Your task to perform on an android device: read, delete, or share a saved page in the chrome app Image 0: 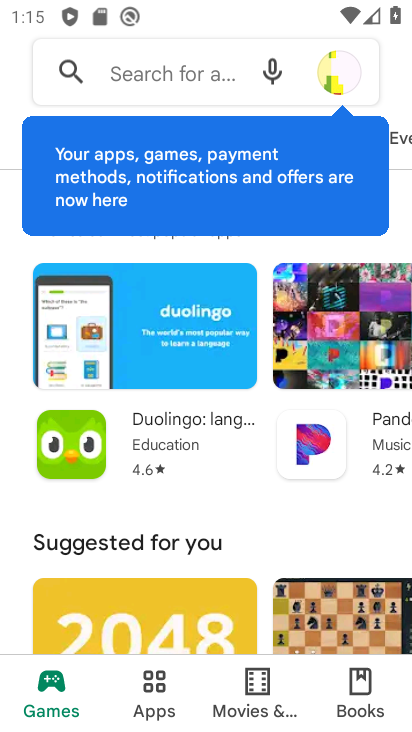
Step 0: press home button
Your task to perform on an android device: read, delete, or share a saved page in the chrome app Image 1: 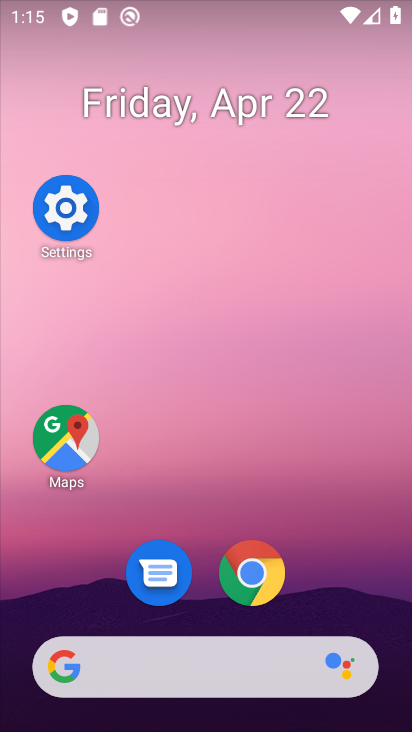
Step 1: click (273, 573)
Your task to perform on an android device: read, delete, or share a saved page in the chrome app Image 2: 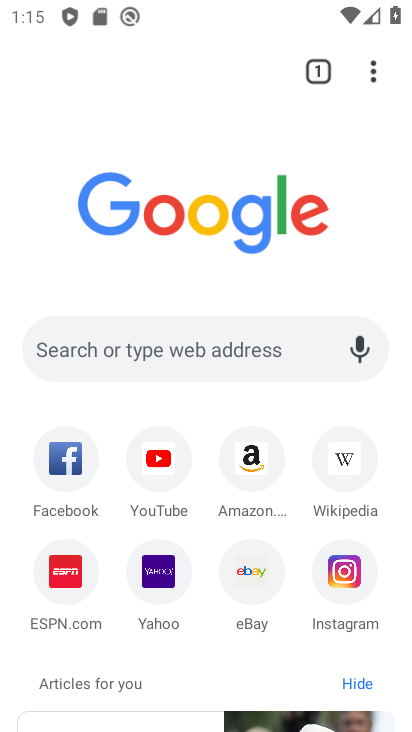
Step 2: click (373, 74)
Your task to perform on an android device: read, delete, or share a saved page in the chrome app Image 3: 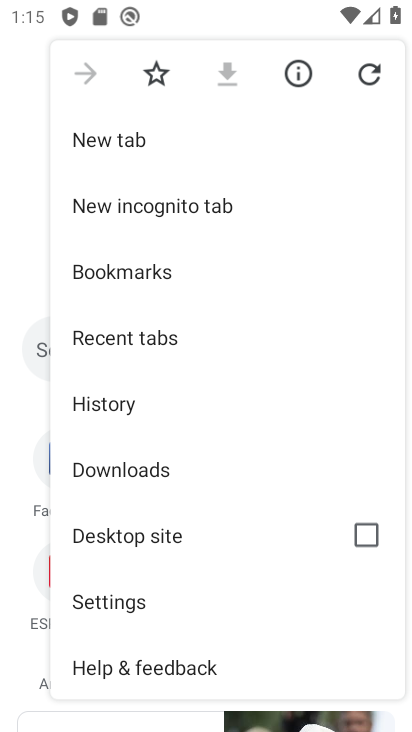
Step 3: click (160, 469)
Your task to perform on an android device: read, delete, or share a saved page in the chrome app Image 4: 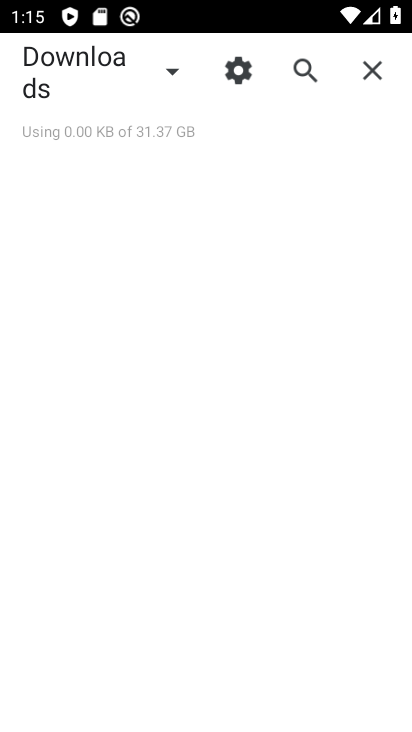
Step 4: task complete